Your task to perform on an android device: Open location settings Image 0: 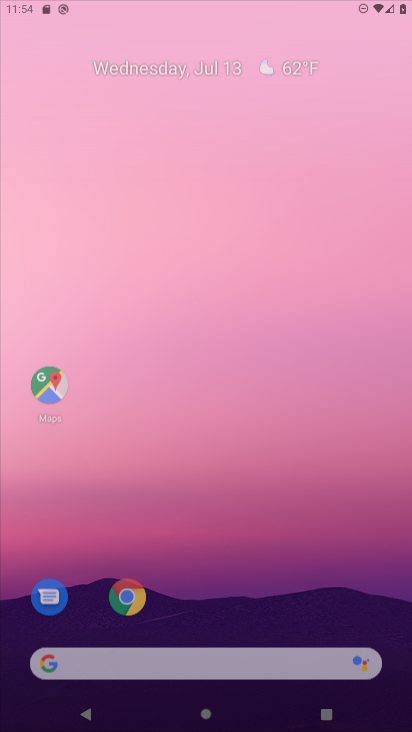
Step 0: click (241, 25)
Your task to perform on an android device: Open location settings Image 1: 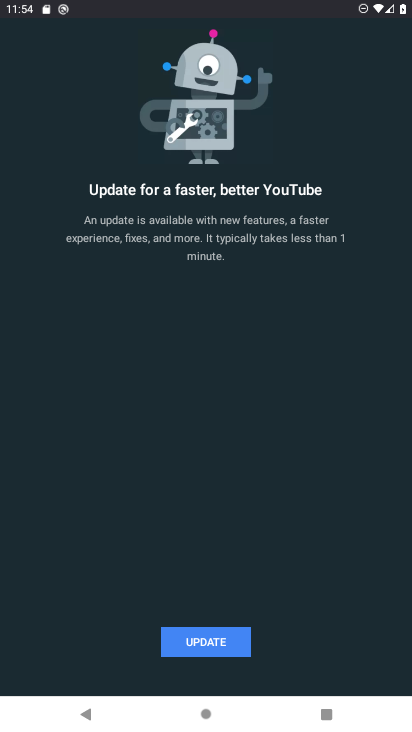
Step 1: press home button
Your task to perform on an android device: Open location settings Image 2: 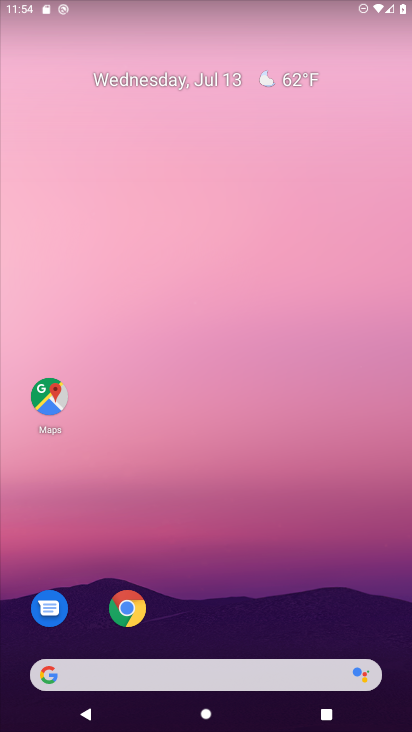
Step 2: drag from (241, 713) to (241, 609)
Your task to perform on an android device: Open location settings Image 3: 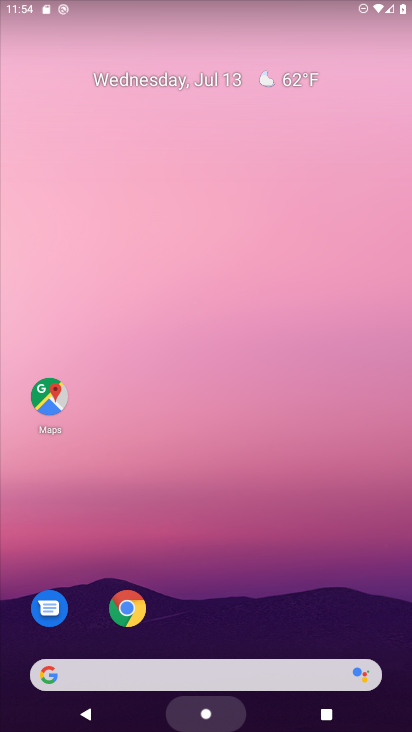
Step 3: drag from (266, 210) to (266, 42)
Your task to perform on an android device: Open location settings Image 4: 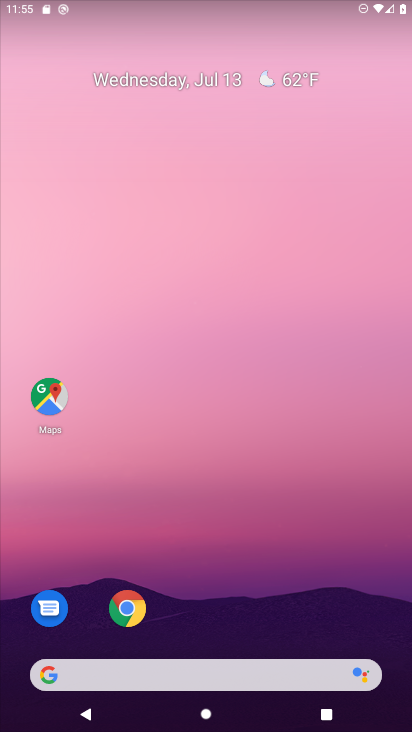
Step 4: drag from (240, 721) to (233, 287)
Your task to perform on an android device: Open location settings Image 5: 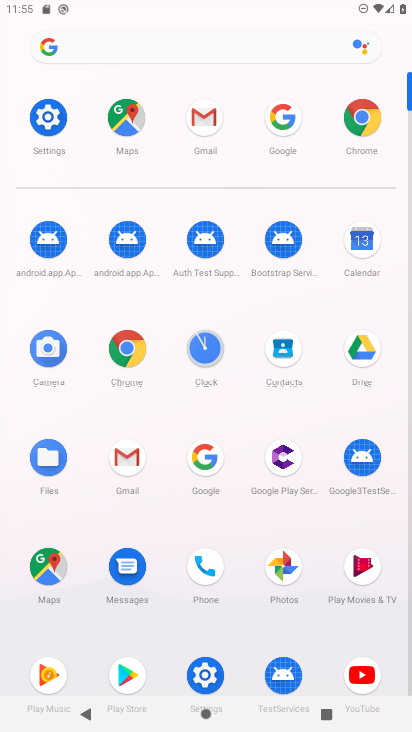
Step 5: click (39, 122)
Your task to perform on an android device: Open location settings Image 6: 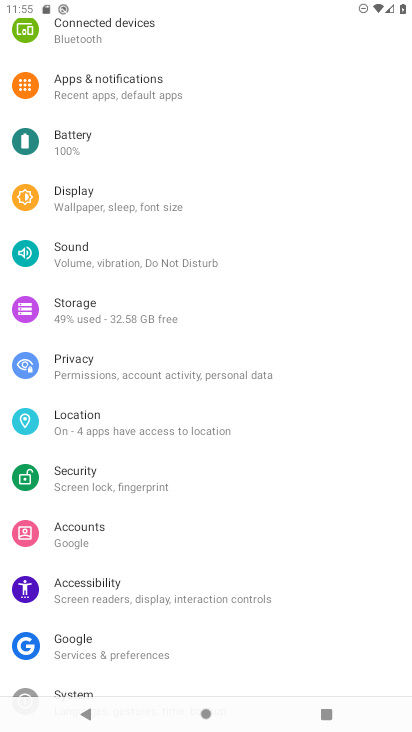
Step 6: click (69, 421)
Your task to perform on an android device: Open location settings Image 7: 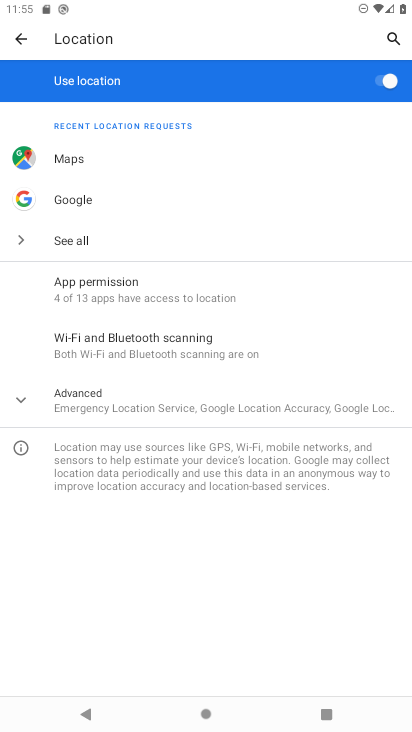
Step 7: task complete